Your task to perform on an android device: Go to settings Image 0: 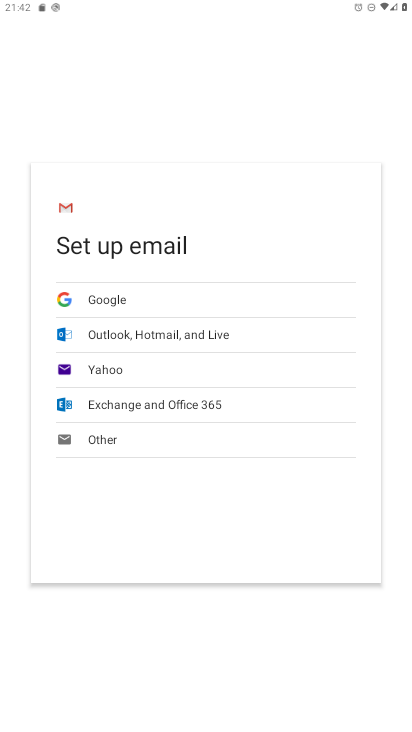
Step 0: press home button
Your task to perform on an android device: Go to settings Image 1: 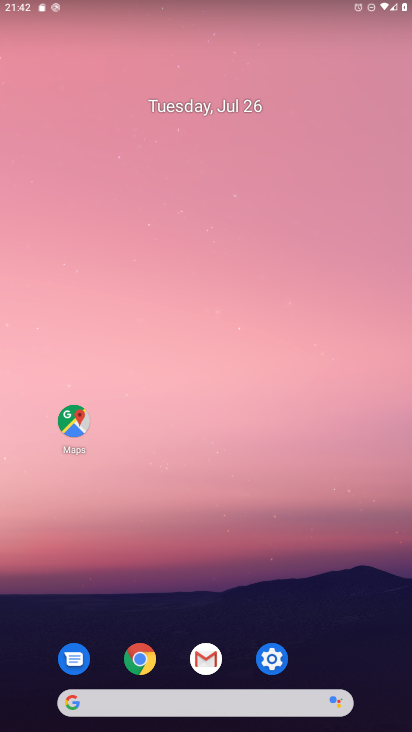
Step 1: click (276, 657)
Your task to perform on an android device: Go to settings Image 2: 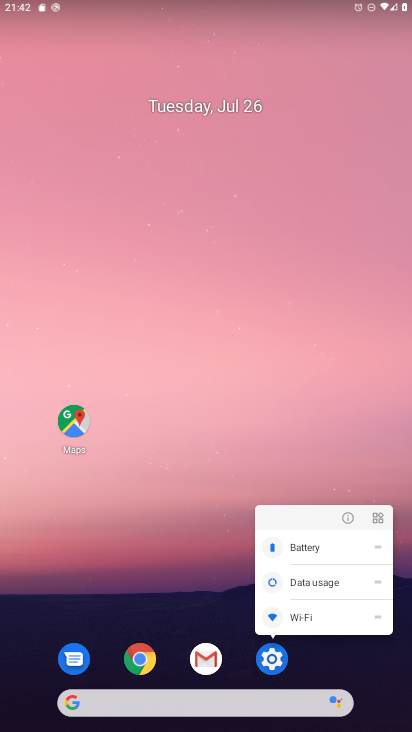
Step 2: click (275, 664)
Your task to perform on an android device: Go to settings Image 3: 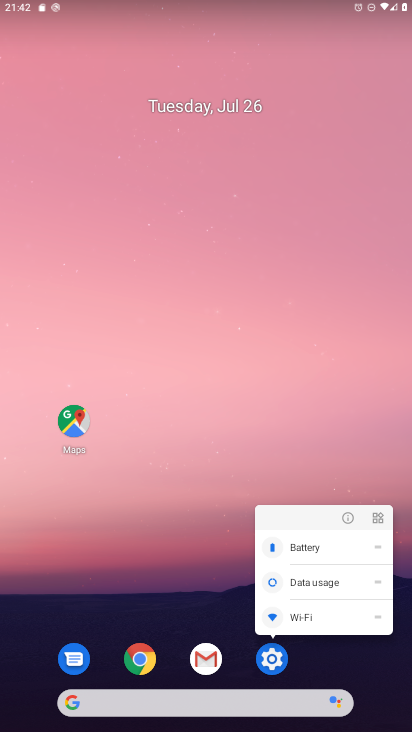
Step 3: click (272, 662)
Your task to perform on an android device: Go to settings Image 4: 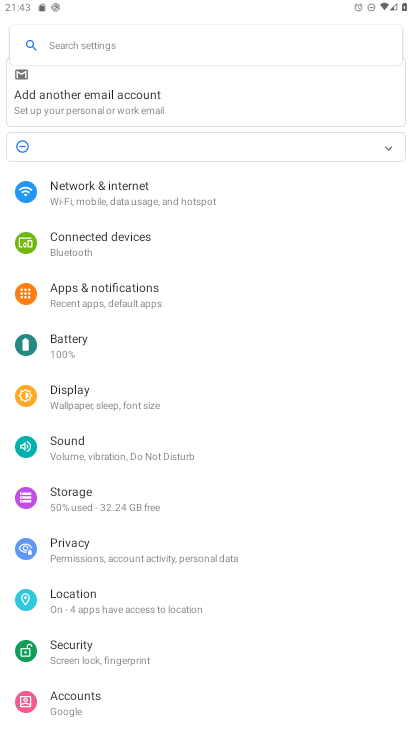
Step 4: task complete